Your task to perform on an android device: Go to CNN.com Image 0: 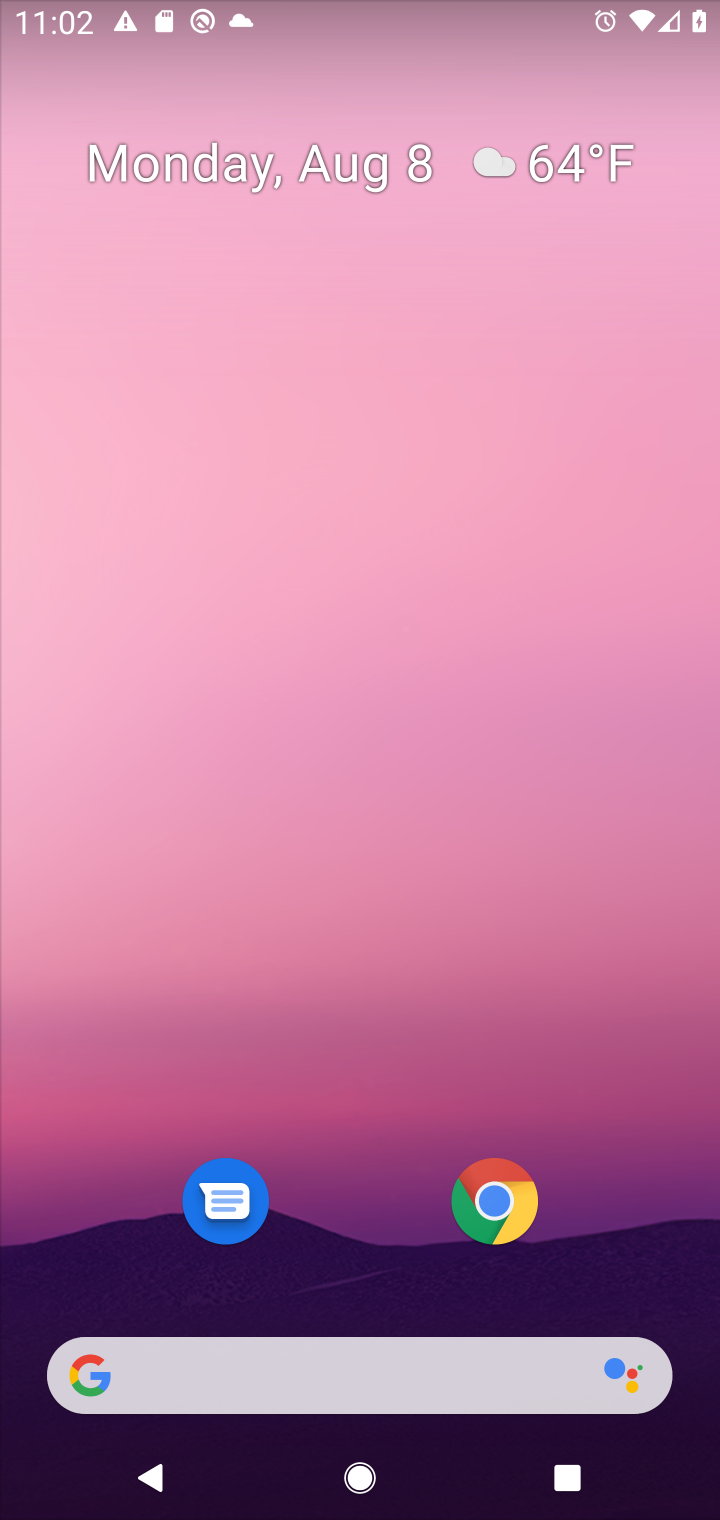
Step 0: press home button
Your task to perform on an android device: Go to CNN.com Image 1: 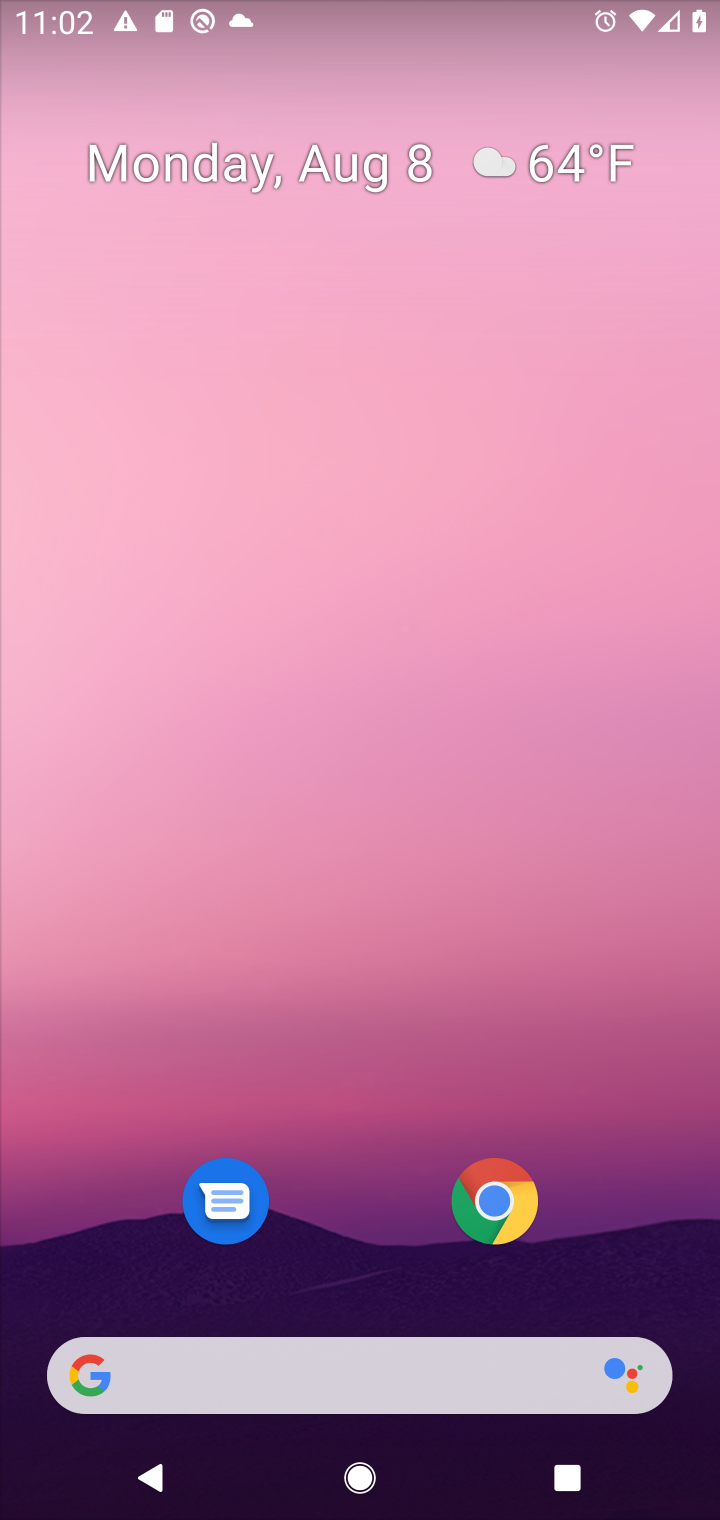
Step 1: drag from (365, 1300) to (408, 359)
Your task to perform on an android device: Go to CNN.com Image 2: 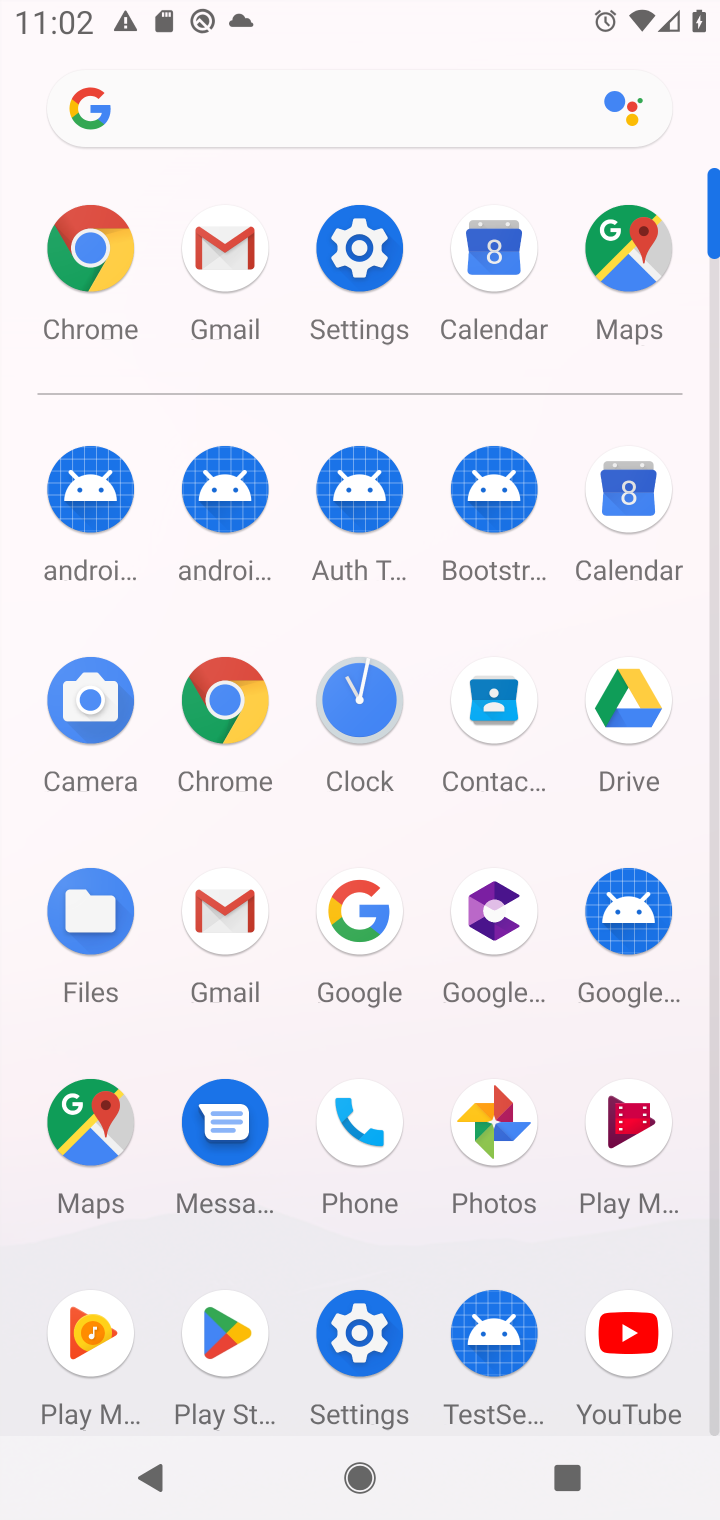
Step 2: click (222, 710)
Your task to perform on an android device: Go to CNN.com Image 3: 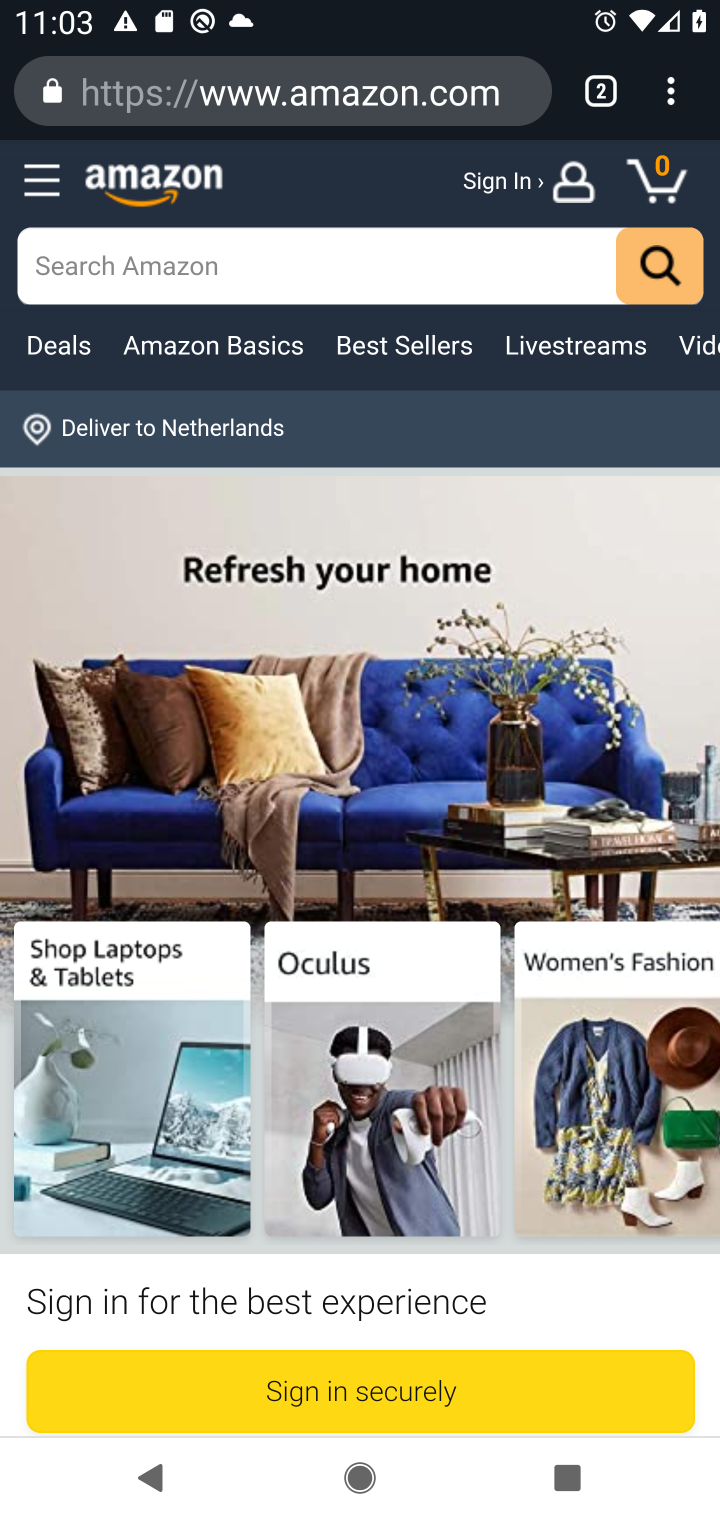
Step 3: click (399, 88)
Your task to perform on an android device: Go to CNN.com Image 4: 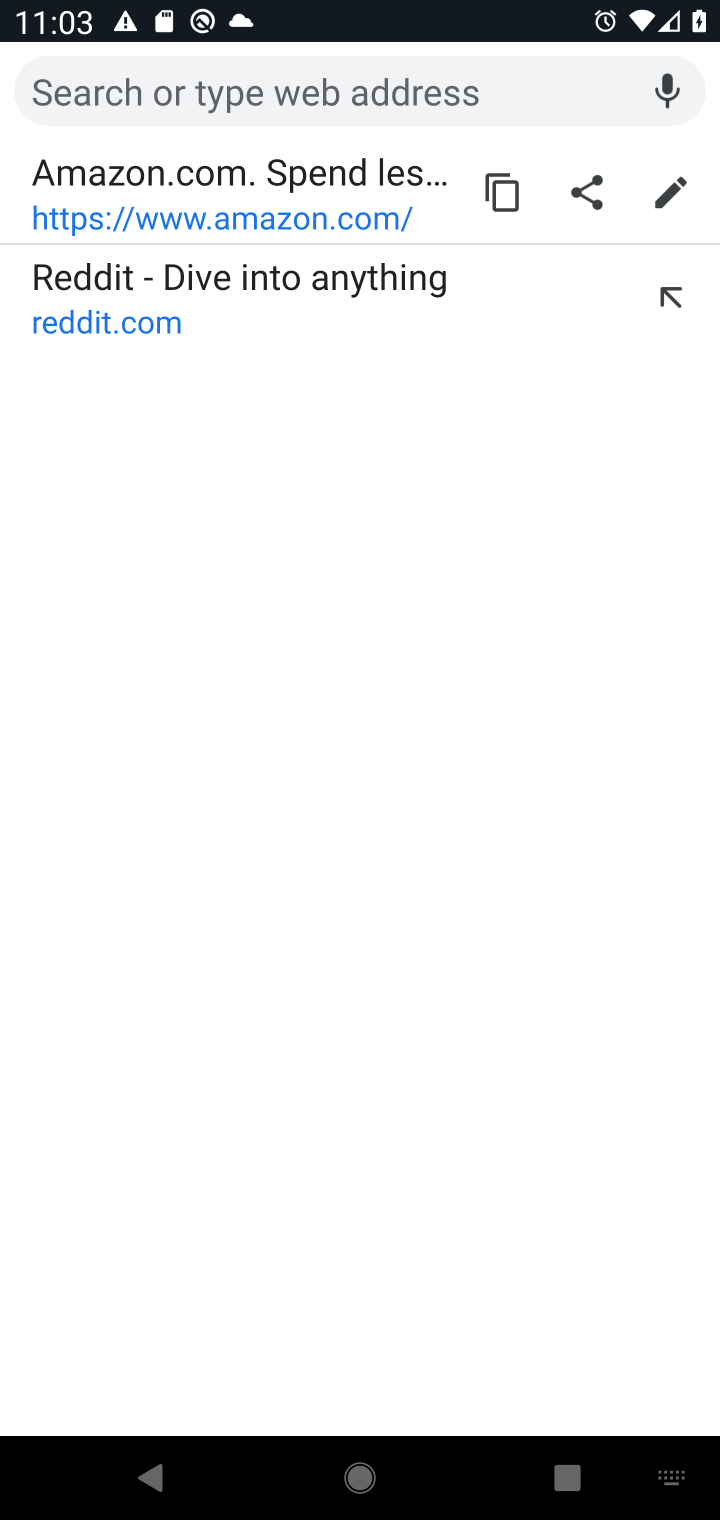
Step 4: type "cnn.com"
Your task to perform on an android device: Go to CNN.com Image 5: 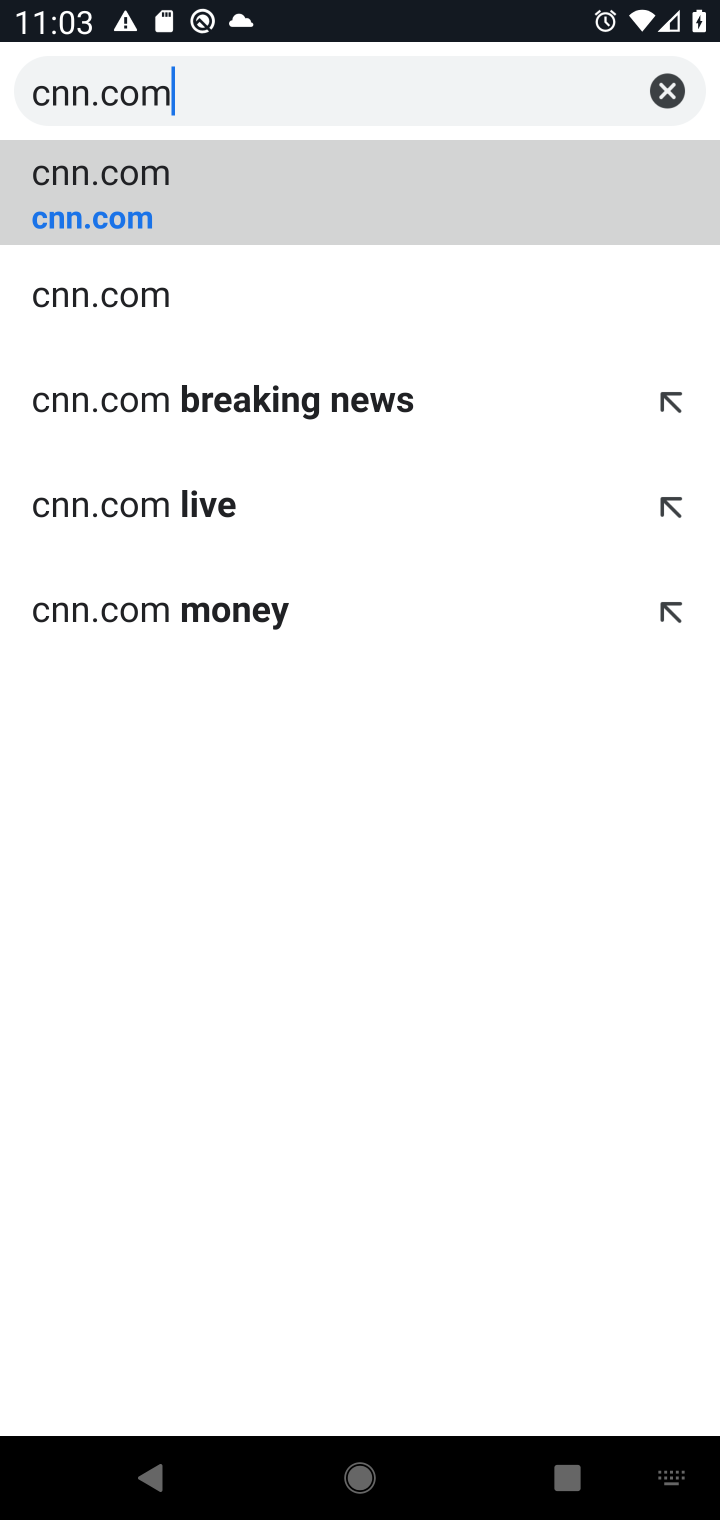
Step 5: click (228, 181)
Your task to perform on an android device: Go to CNN.com Image 6: 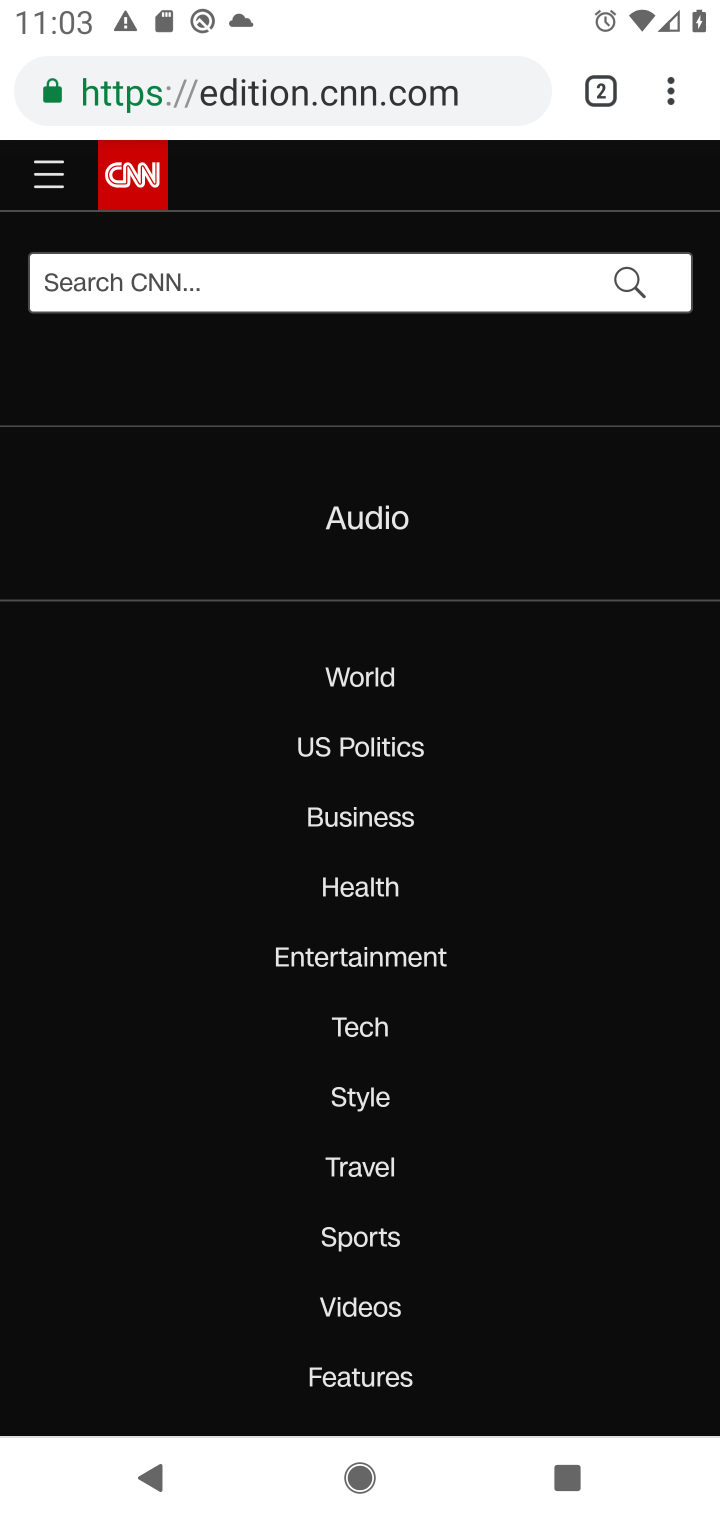
Step 6: task complete